Your task to perform on an android device: change the clock display to analog Image 0: 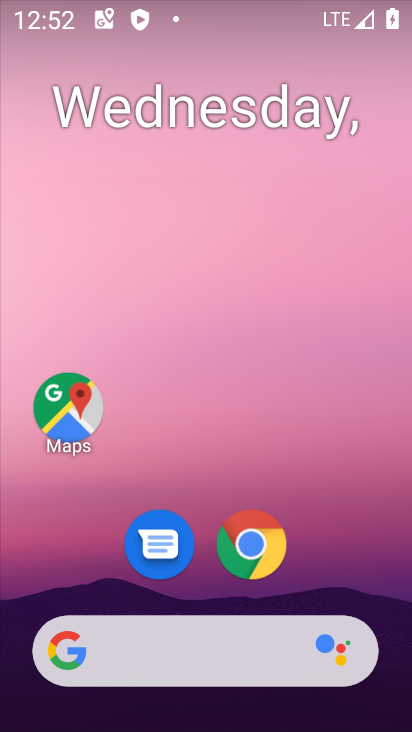
Step 0: drag from (387, 639) to (325, 35)
Your task to perform on an android device: change the clock display to analog Image 1: 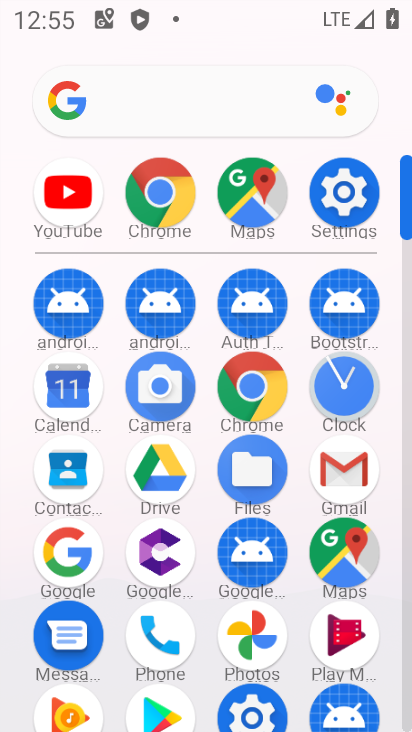
Step 1: click (352, 378)
Your task to perform on an android device: change the clock display to analog Image 2: 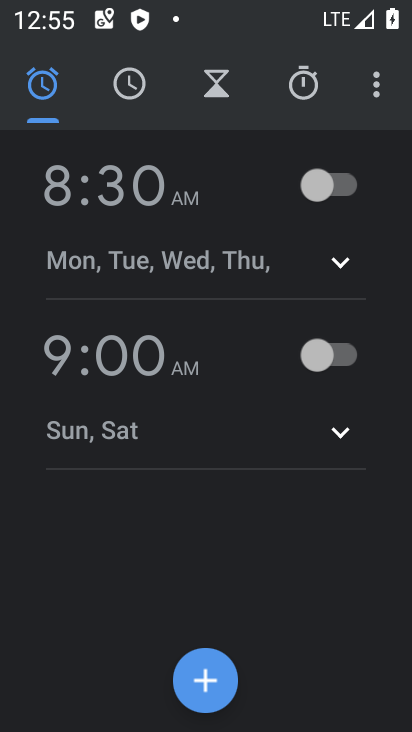
Step 2: click (381, 94)
Your task to perform on an android device: change the clock display to analog Image 3: 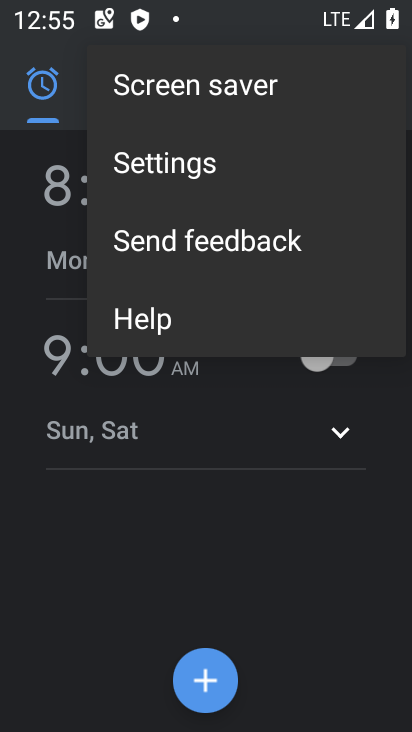
Step 3: click (197, 169)
Your task to perform on an android device: change the clock display to analog Image 4: 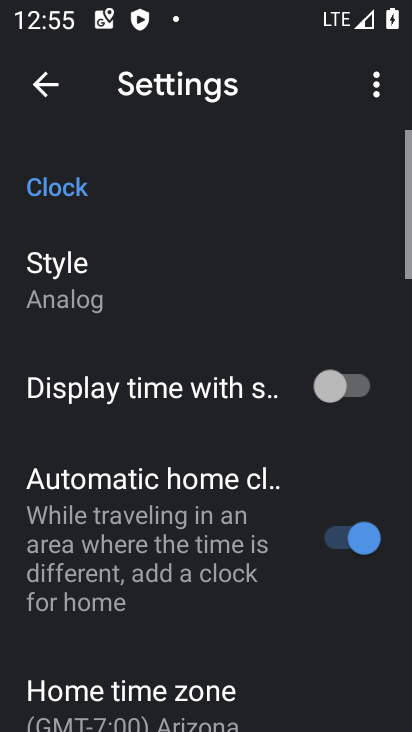
Step 4: click (118, 296)
Your task to perform on an android device: change the clock display to analog Image 5: 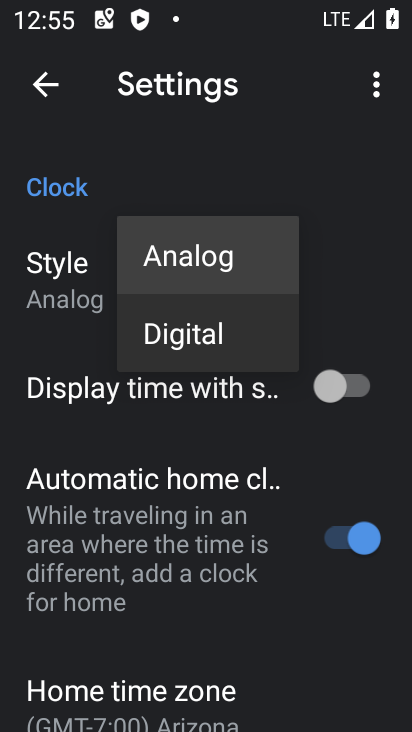
Step 5: click (225, 273)
Your task to perform on an android device: change the clock display to analog Image 6: 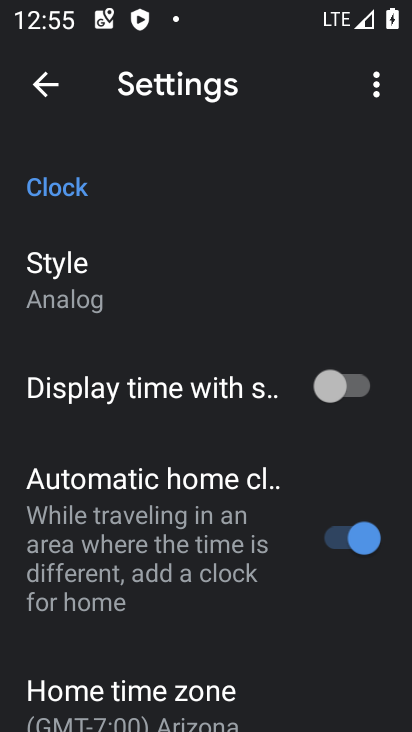
Step 6: task complete